Your task to perform on an android device: Do I have any events this weekend? Image 0: 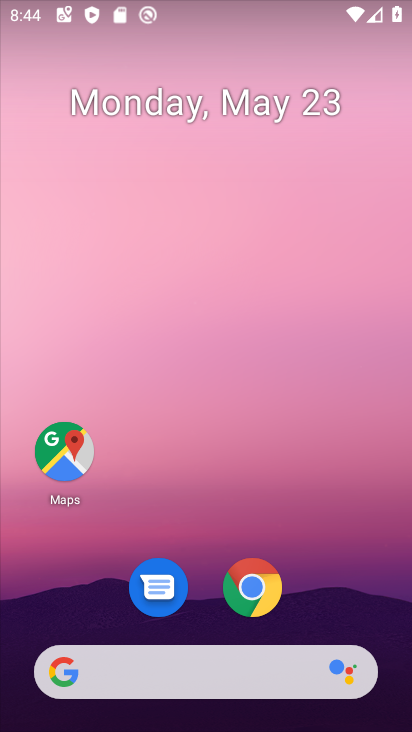
Step 0: click (325, 590)
Your task to perform on an android device: Do I have any events this weekend? Image 1: 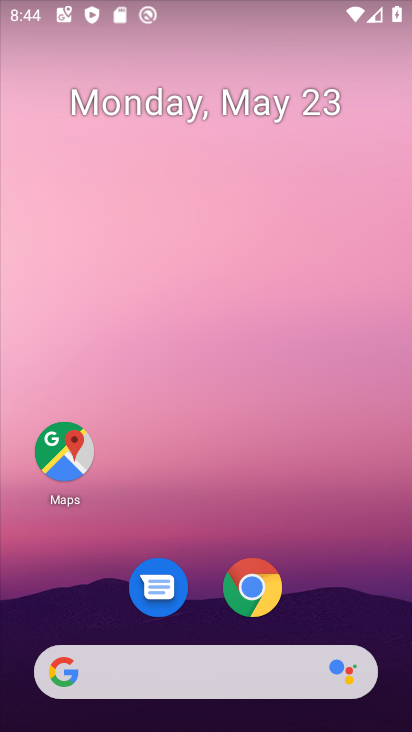
Step 1: click (175, 111)
Your task to perform on an android device: Do I have any events this weekend? Image 2: 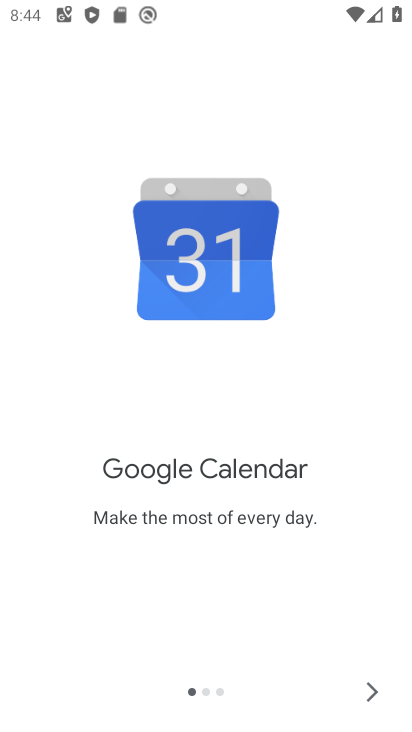
Step 2: click (366, 694)
Your task to perform on an android device: Do I have any events this weekend? Image 3: 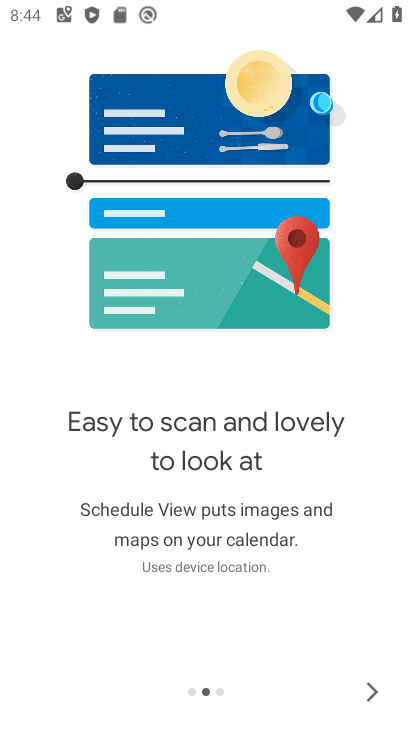
Step 3: click (366, 694)
Your task to perform on an android device: Do I have any events this weekend? Image 4: 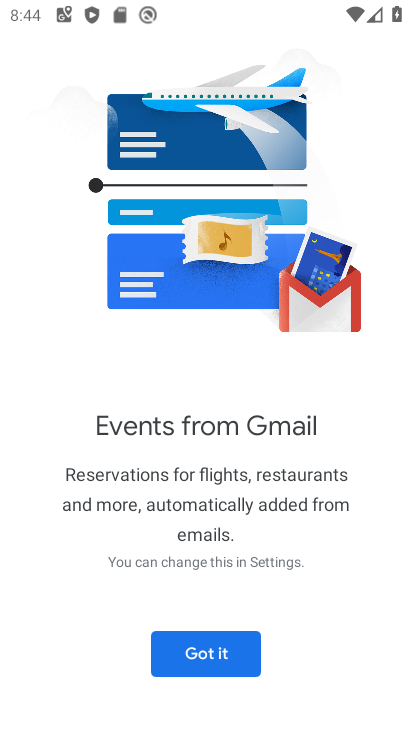
Step 4: click (231, 663)
Your task to perform on an android device: Do I have any events this weekend? Image 5: 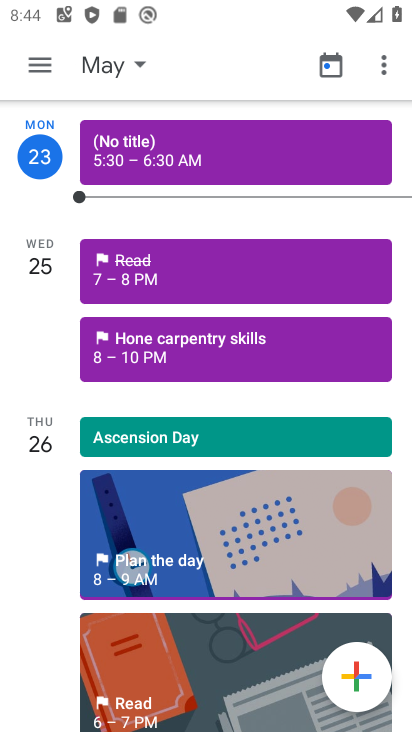
Step 5: click (43, 58)
Your task to perform on an android device: Do I have any events this weekend? Image 6: 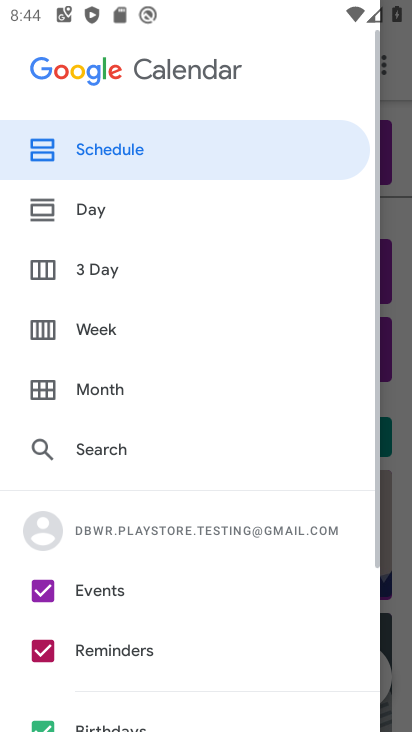
Step 6: drag from (204, 657) to (190, 368)
Your task to perform on an android device: Do I have any events this weekend? Image 7: 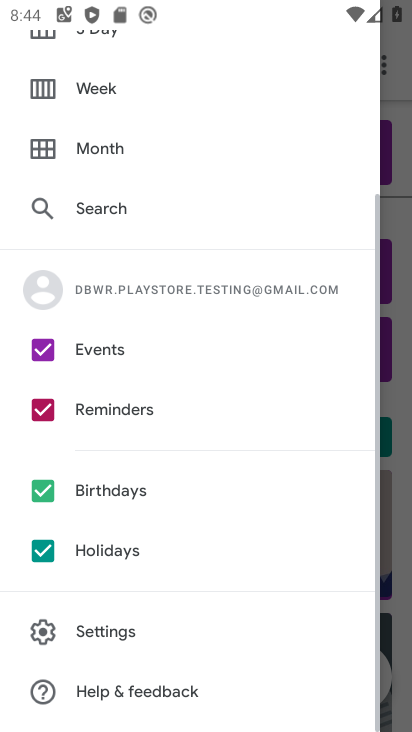
Step 7: click (48, 413)
Your task to perform on an android device: Do I have any events this weekend? Image 8: 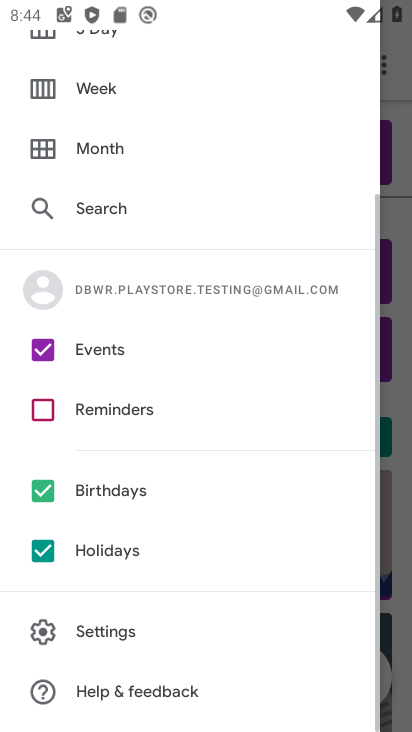
Step 8: click (42, 493)
Your task to perform on an android device: Do I have any events this weekend? Image 9: 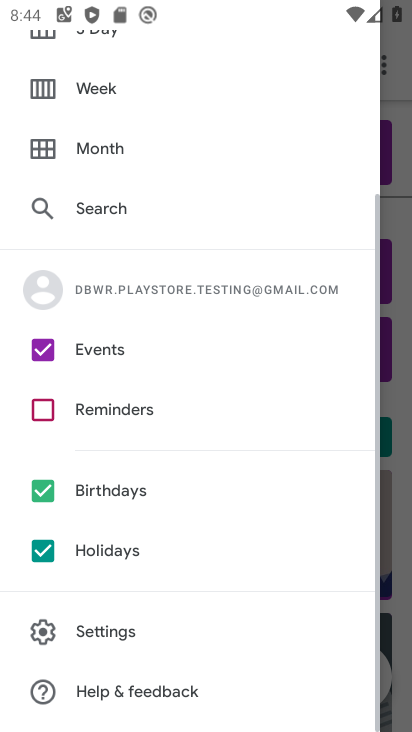
Step 9: click (44, 547)
Your task to perform on an android device: Do I have any events this weekend? Image 10: 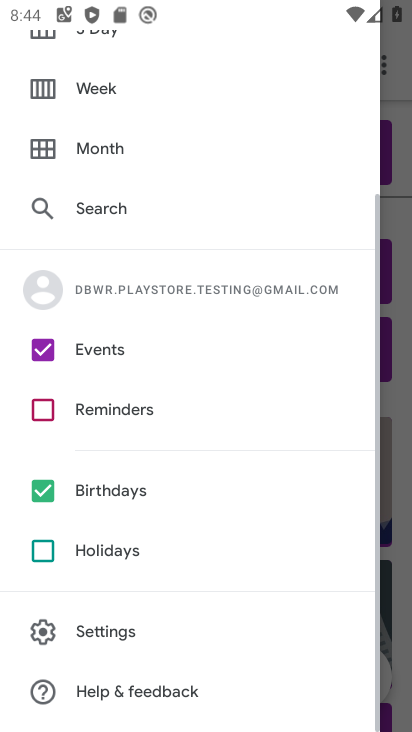
Step 10: click (41, 483)
Your task to perform on an android device: Do I have any events this weekend? Image 11: 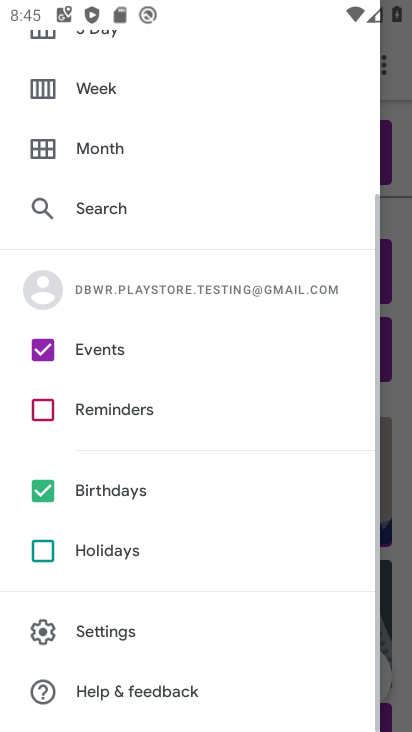
Step 11: click (36, 487)
Your task to perform on an android device: Do I have any events this weekend? Image 12: 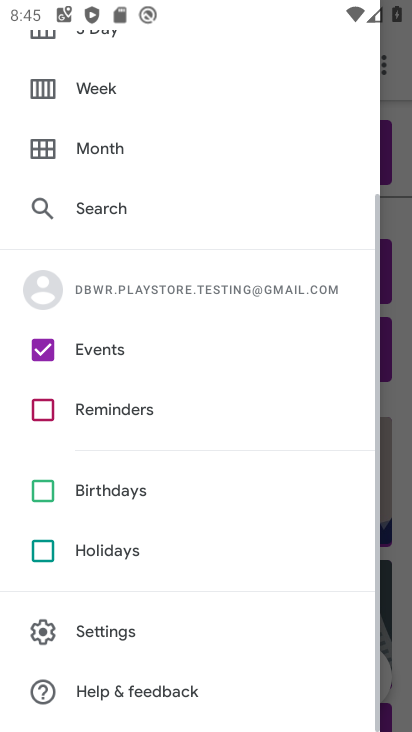
Step 12: drag from (291, 149) to (279, 614)
Your task to perform on an android device: Do I have any events this weekend? Image 13: 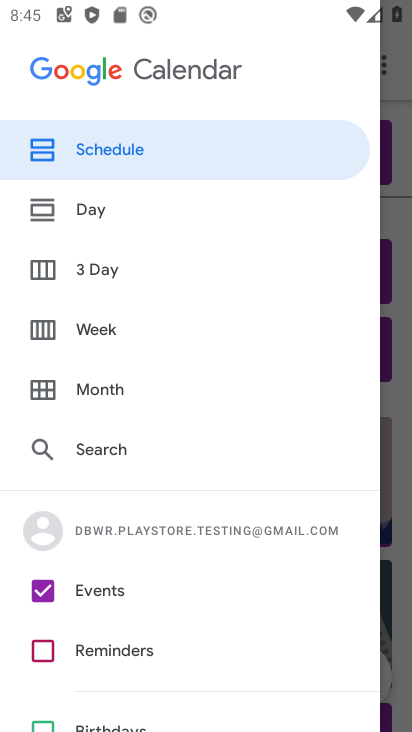
Step 13: click (85, 271)
Your task to perform on an android device: Do I have any events this weekend? Image 14: 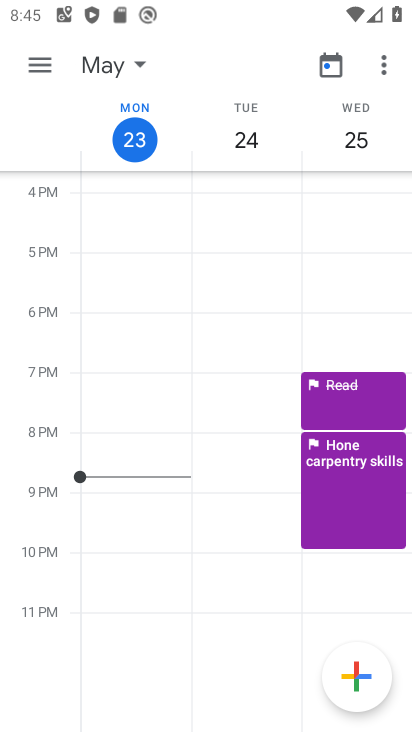
Step 14: task complete